Your task to perform on an android device: toggle improve location accuracy Image 0: 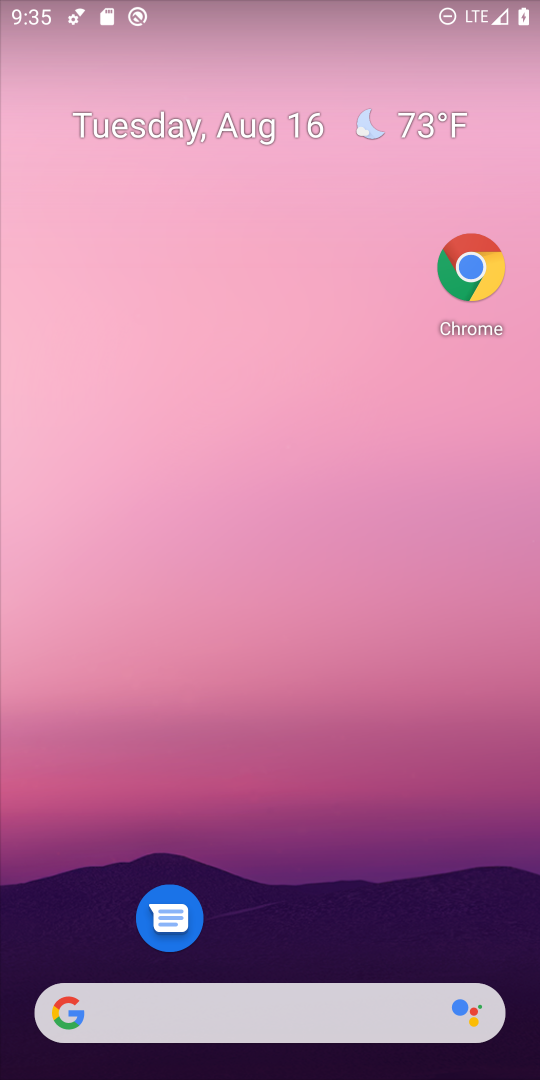
Step 0: drag from (353, 1021) to (319, 135)
Your task to perform on an android device: toggle improve location accuracy Image 1: 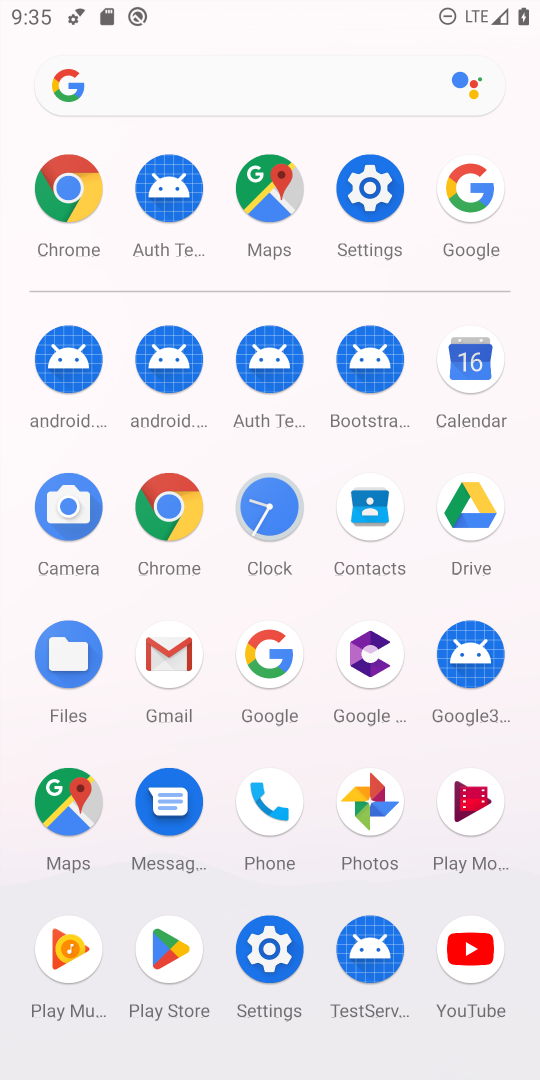
Step 1: click (376, 200)
Your task to perform on an android device: toggle improve location accuracy Image 2: 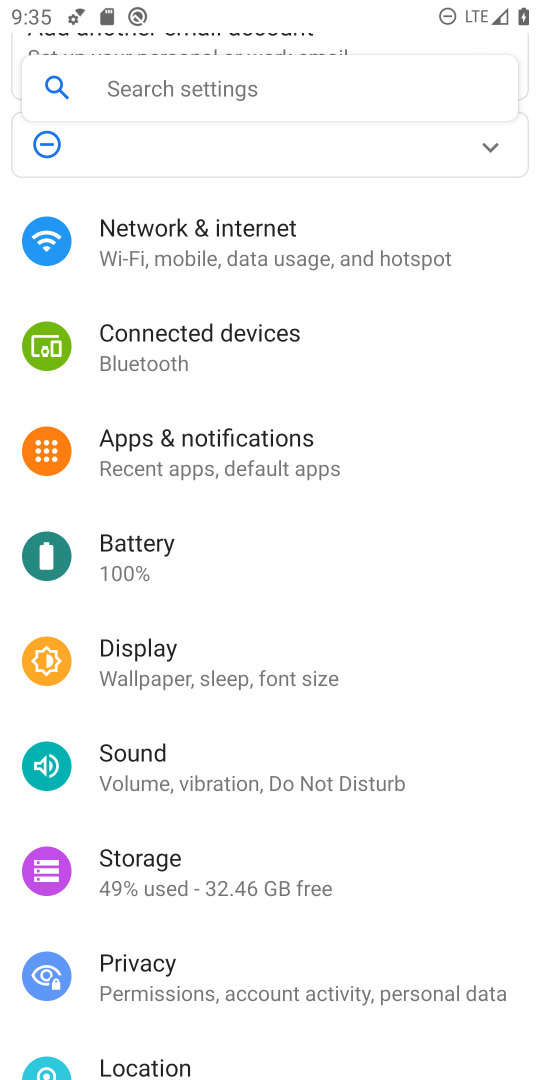
Step 2: drag from (249, 784) to (327, 228)
Your task to perform on an android device: toggle improve location accuracy Image 3: 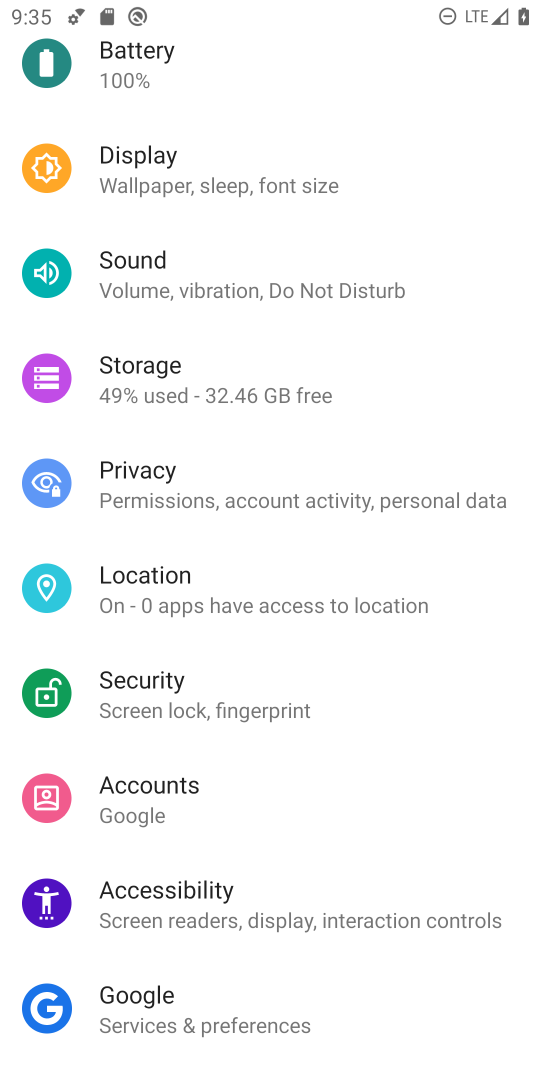
Step 3: click (258, 613)
Your task to perform on an android device: toggle improve location accuracy Image 4: 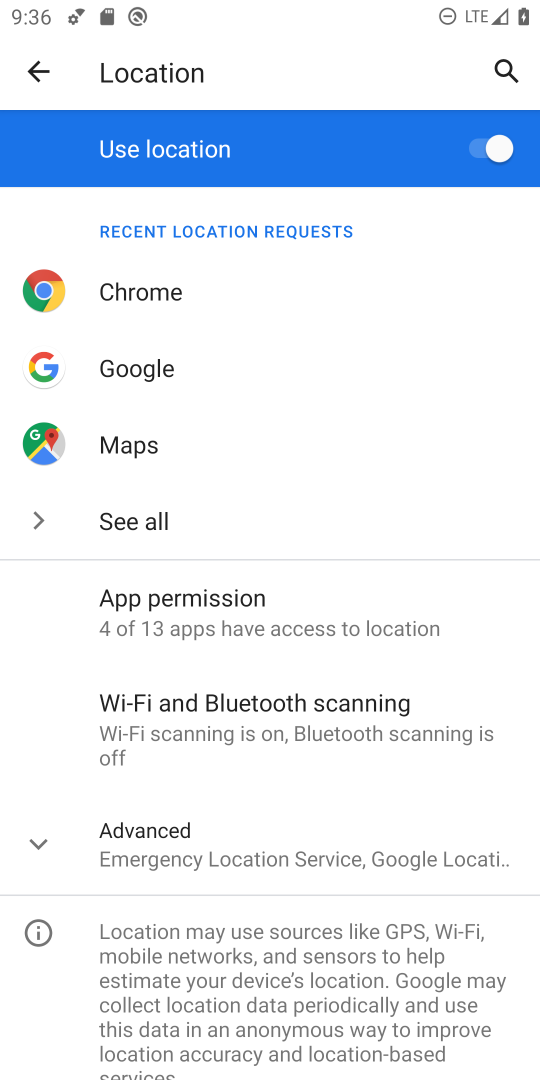
Step 4: click (306, 866)
Your task to perform on an android device: toggle improve location accuracy Image 5: 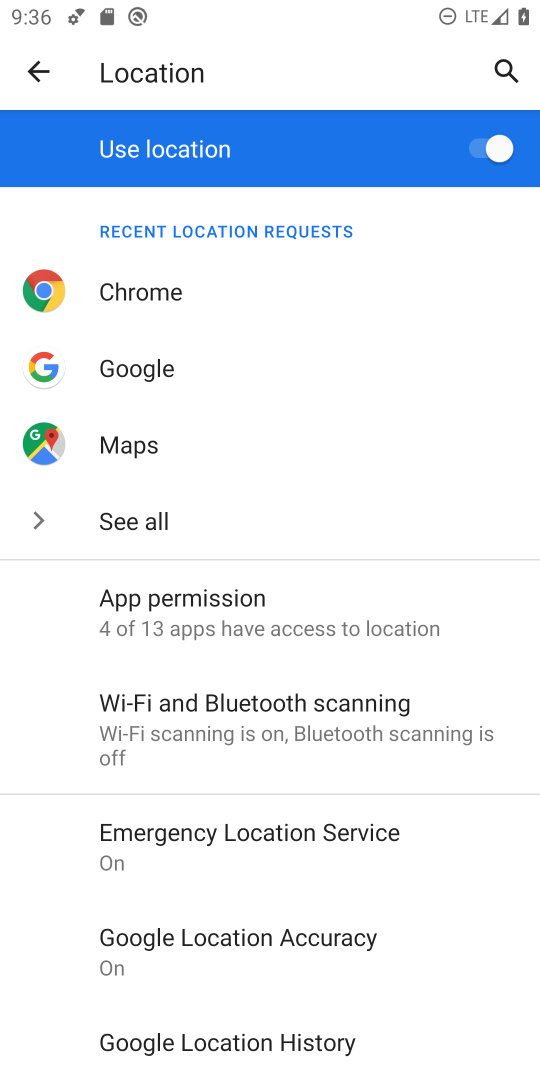
Step 5: click (301, 935)
Your task to perform on an android device: toggle improve location accuracy Image 6: 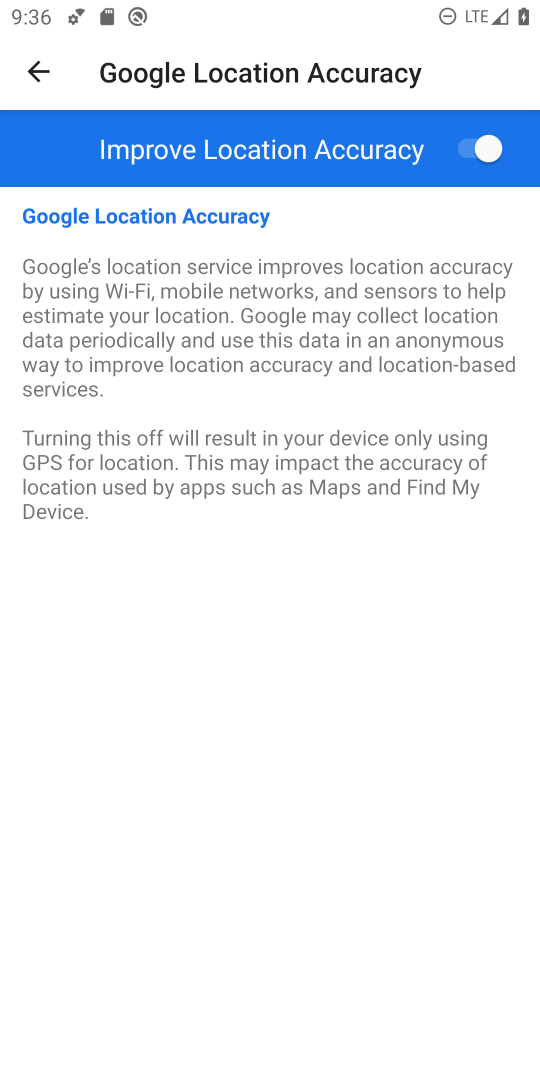
Step 6: click (485, 153)
Your task to perform on an android device: toggle improve location accuracy Image 7: 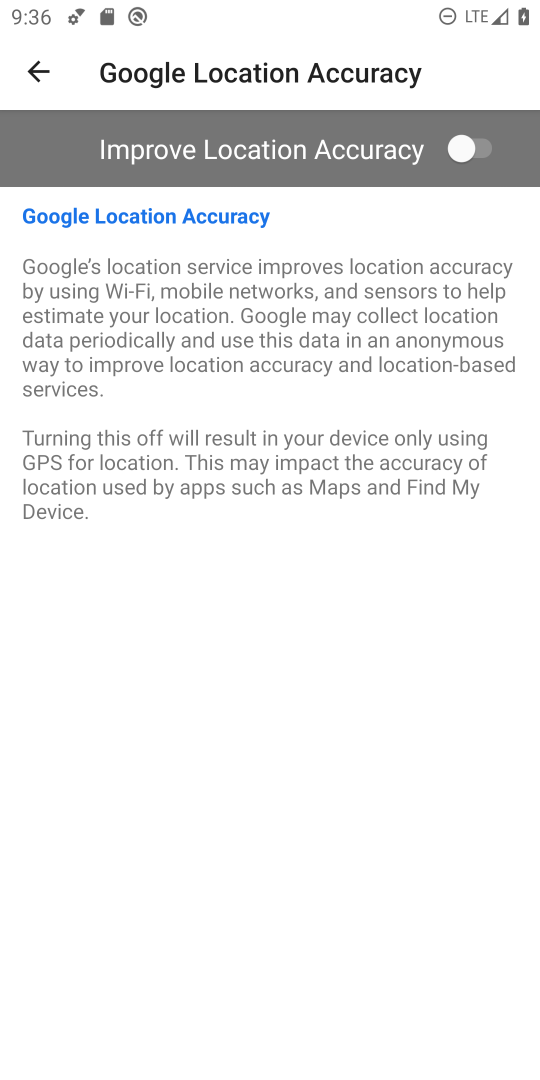
Step 7: task complete